Your task to perform on an android device: Find coffee shops on Maps Image 0: 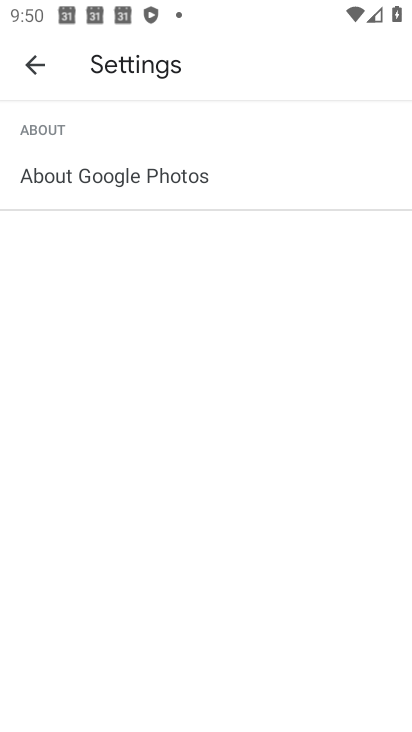
Step 0: press home button
Your task to perform on an android device: Find coffee shops on Maps Image 1: 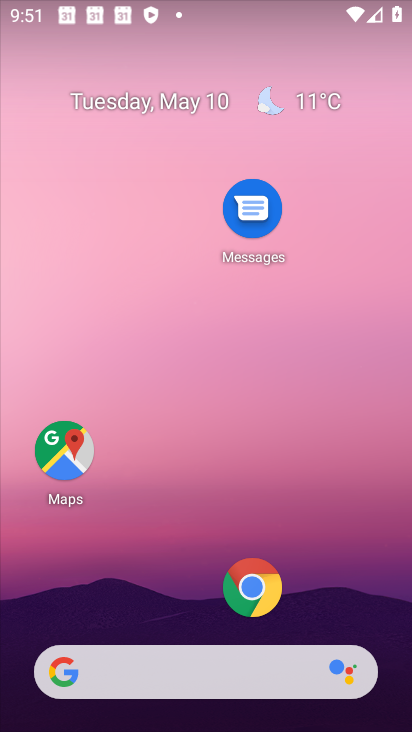
Step 1: click (55, 447)
Your task to perform on an android device: Find coffee shops on Maps Image 2: 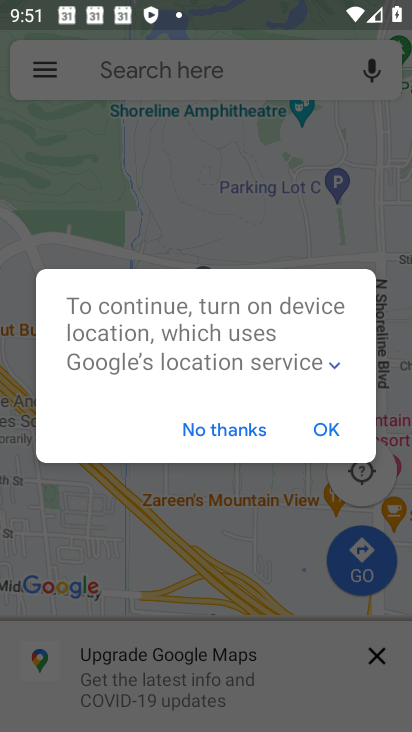
Step 2: click (248, 423)
Your task to perform on an android device: Find coffee shops on Maps Image 3: 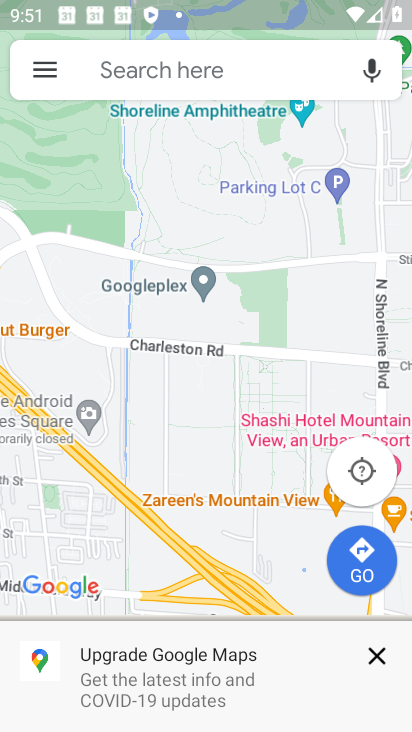
Step 3: drag from (160, 73) to (225, 73)
Your task to perform on an android device: Find coffee shops on Maps Image 4: 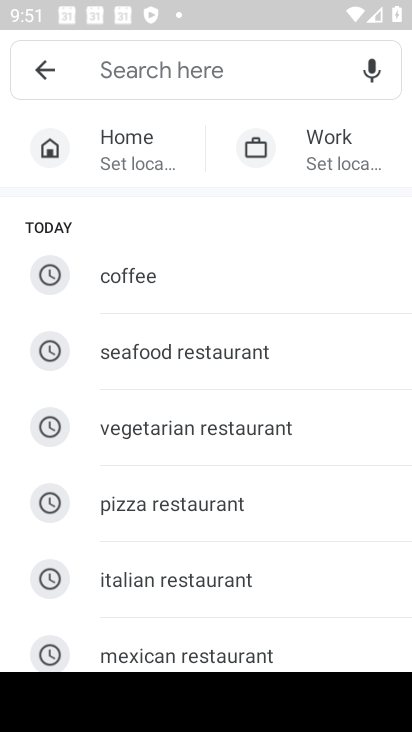
Step 4: type "coffee shops"
Your task to perform on an android device: Find coffee shops on Maps Image 5: 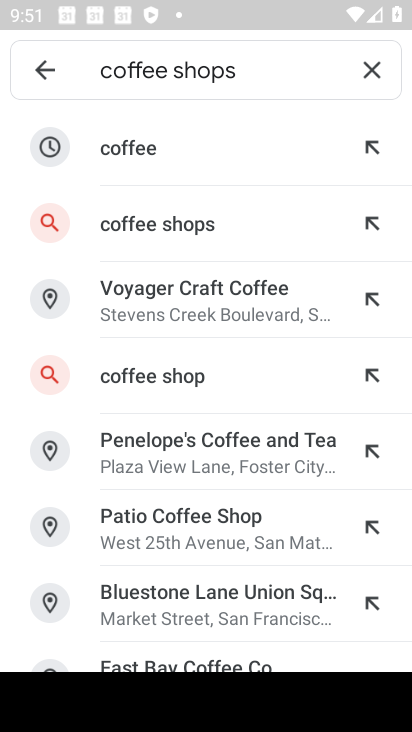
Step 5: click (209, 236)
Your task to perform on an android device: Find coffee shops on Maps Image 6: 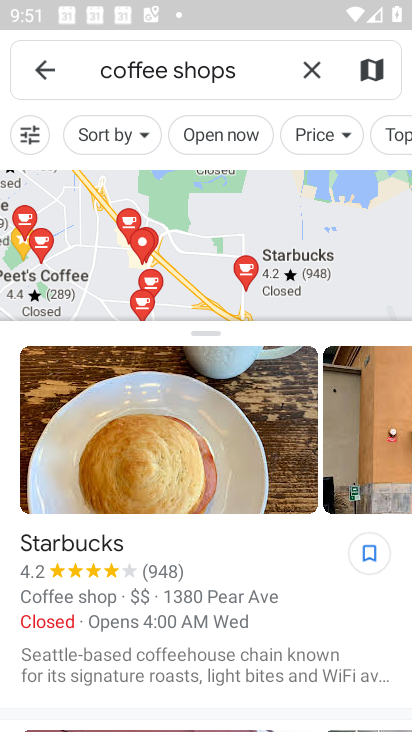
Step 6: task complete